Your task to perform on an android device: open the mobile data screen to see how much data has been used Image 0: 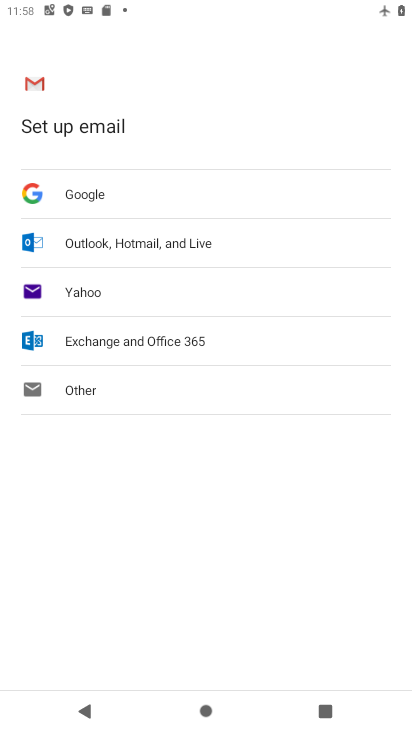
Step 0: press home button
Your task to perform on an android device: open the mobile data screen to see how much data has been used Image 1: 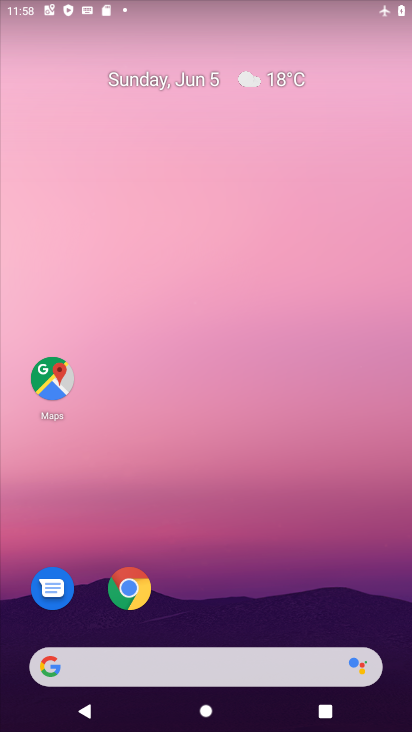
Step 1: drag from (261, 613) to (203, 224)
Your task to perform on an android device: open the mobile data screen to see how much data has been used Image 2: 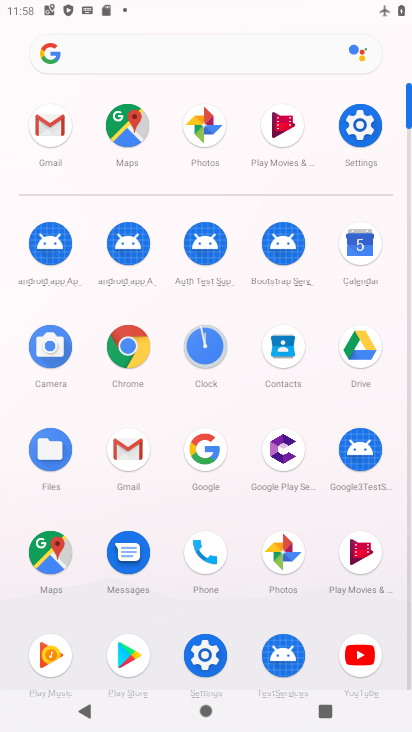
Step 2: click (349, 112)
Your task to perform on an android device: open the mobile data screen to see how much data has been used Image 3: 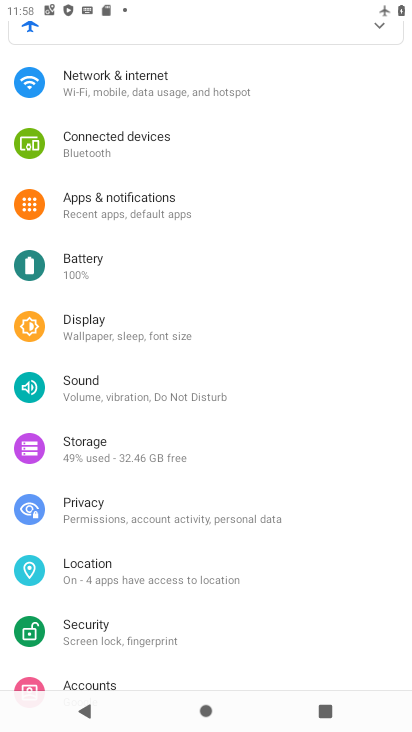
Step 3: click (255, 94)
Your task to perform on an android device: open the mobile data screen to see how much data has been used Image 4: 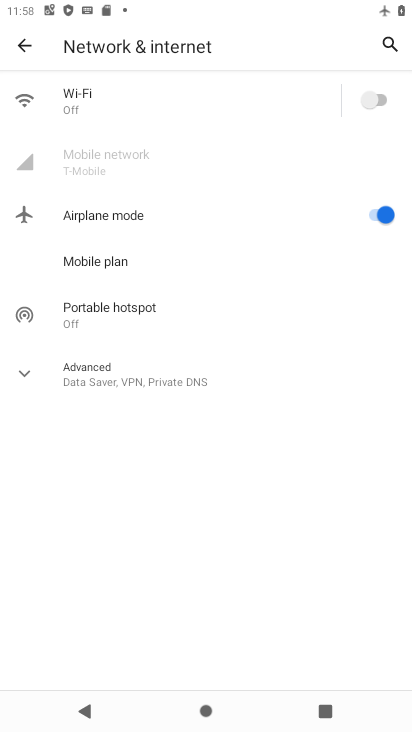
Step 4: click (248, 165)
Your task to perform on an android device: open the mobile data screen to see how much data has been used Image 5: 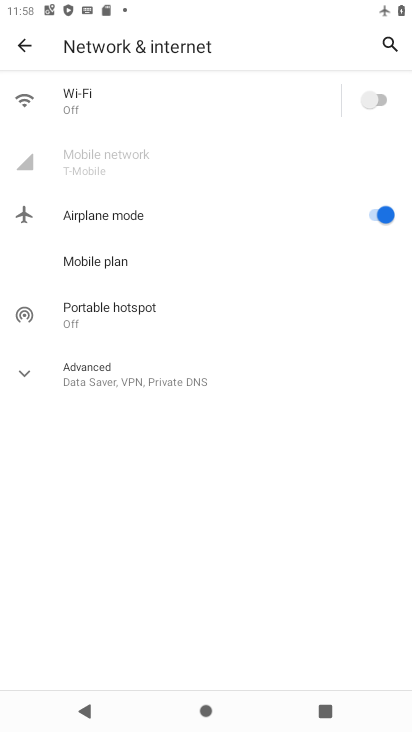
Step 5: task complete